Your task to perform on an android device: open device folders in google photos Image 0: 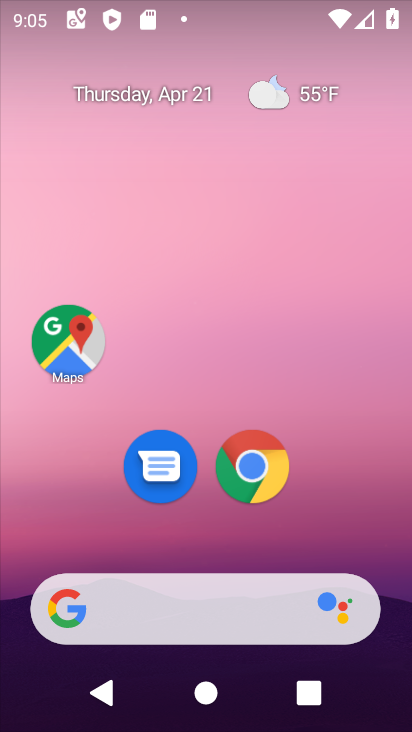
Step 0: drag from (329, 402) to (329, 153)
Your task to perform on an android device: open device folders in google photos Image 1: 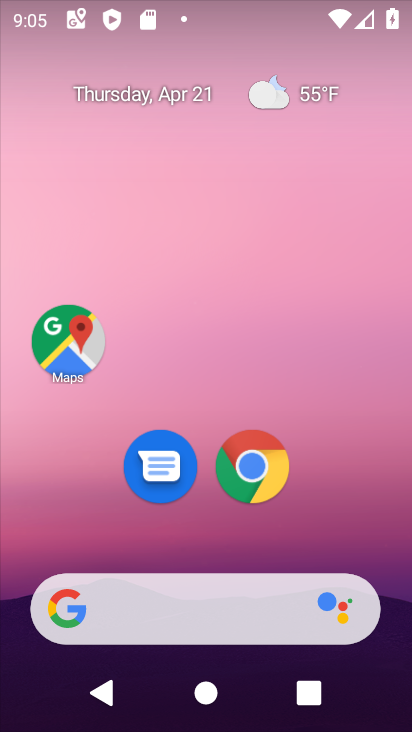
Step 1: drag from (337, 528) to (353, 148)
Your task to perform on an android device: open device folders in google photos Image 2: 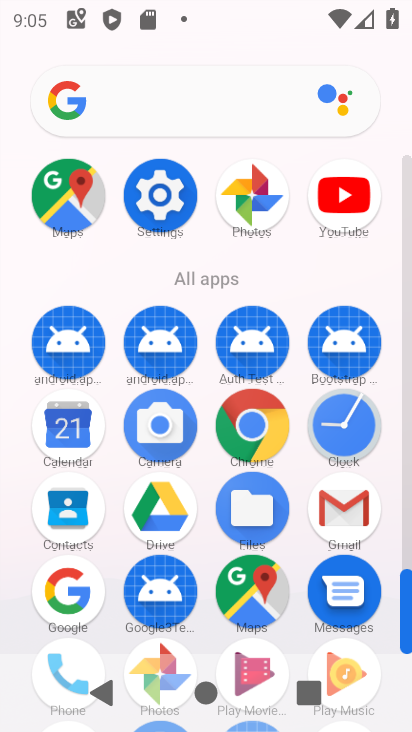
Step 2: click (259, 216)
Your task to perform on an android device: open device folders in google photos Image 3: 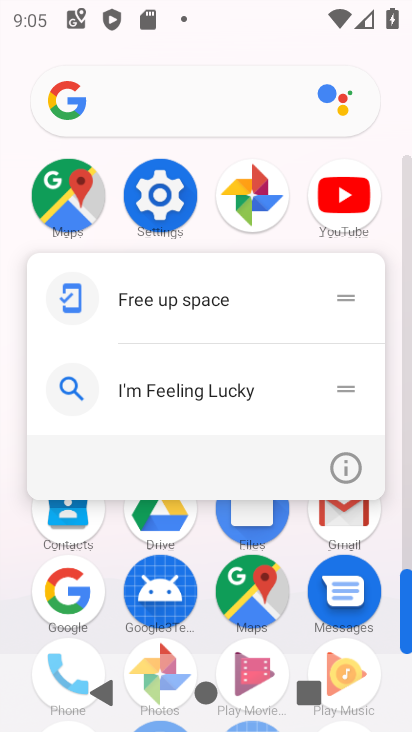
Step 3: click (263, 203)
Your task to perform on an android device: open device folders in google photos Image 4: 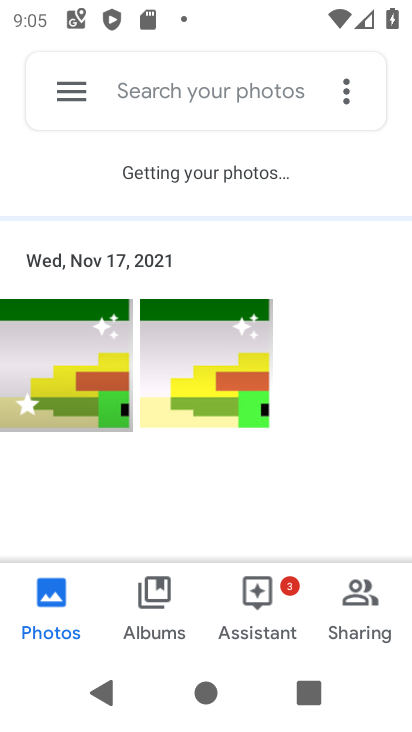
Step 4: click (66, 94)
Your task to perform on an android device: open device folders in google photos Image 5: 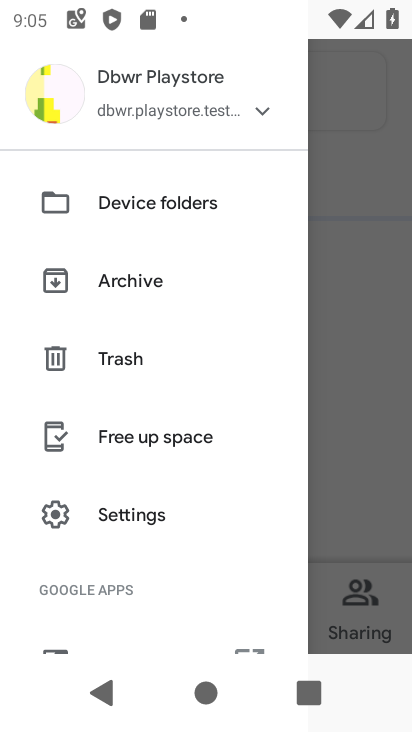
Step 5: click (118, 202)
Your task to perform on an android device: open device folders in google photos Image 6: 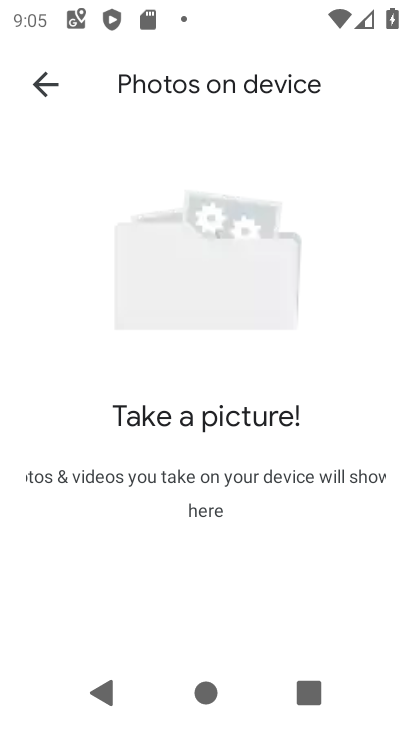
Step 6: task complete